Your task to perform on an android device: Open Google Image 0: 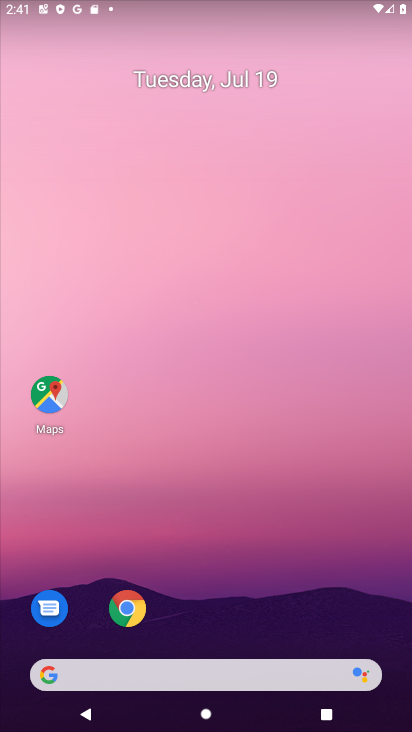
Step 0: drag from (307, 578) to (149, 1)
Your task to perform on an android device: Open Google Image 1: 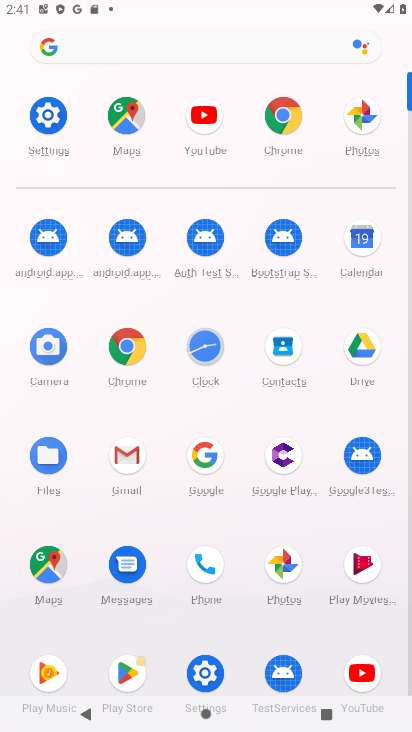
Step 1: click (203, 458)
Your task to perform on an android device: Open Google Image 2: 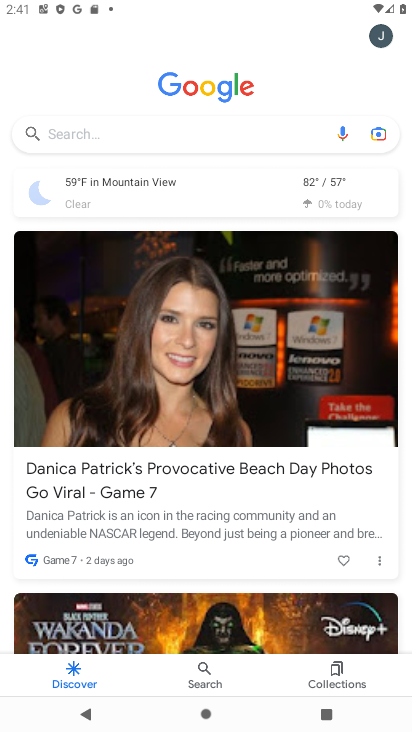
Step 2: task complete